Your task to perform on an android device: Open settings on Google Maps Image 0: 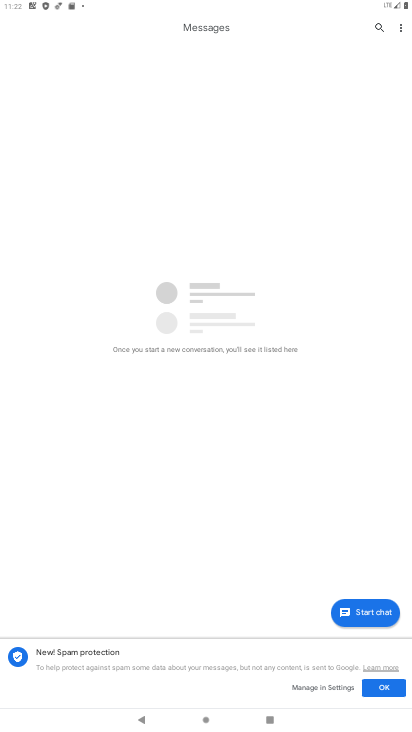
Step 0: press home button
Your task to perform on an android device: Open settings on Google Maps Image 1: 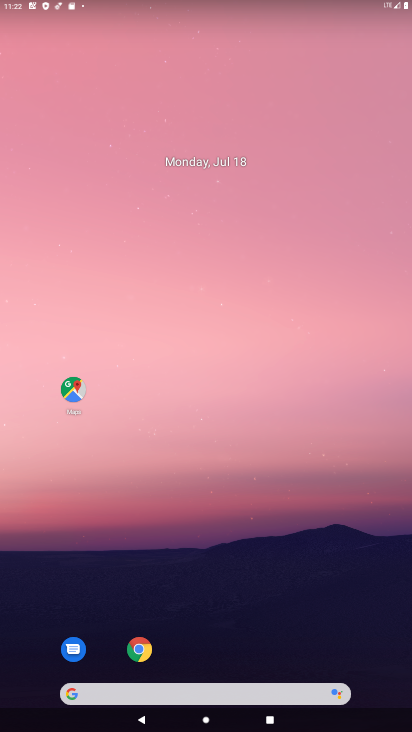
Step 1: drag from (169, 713) to (286, 14)
Your task to perform on an android device: Open settings on Google Maps Image 2: 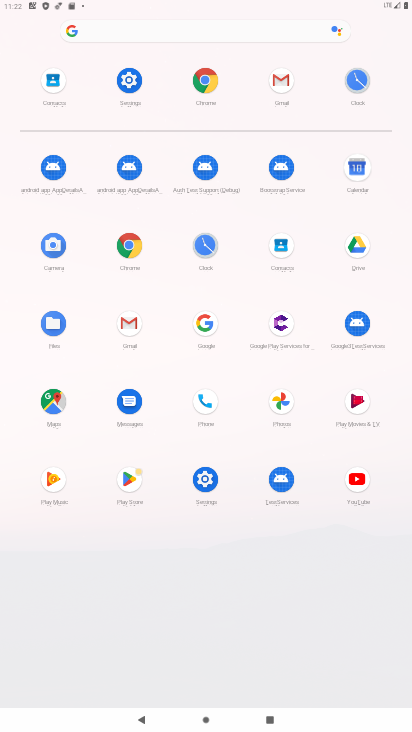
Step 2: click (55, 399)
Your task to perform on an android device: Open settings on Google Maps Image 3: 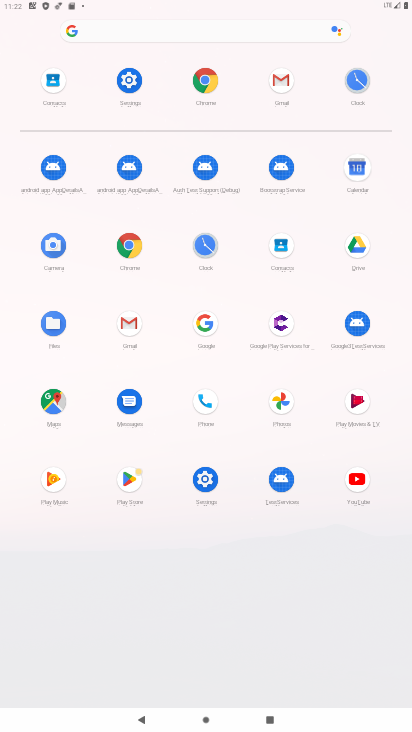
Step 3: click (55, 399)
Your task to perform on an android device: Open settings on Google Maps Image 4: 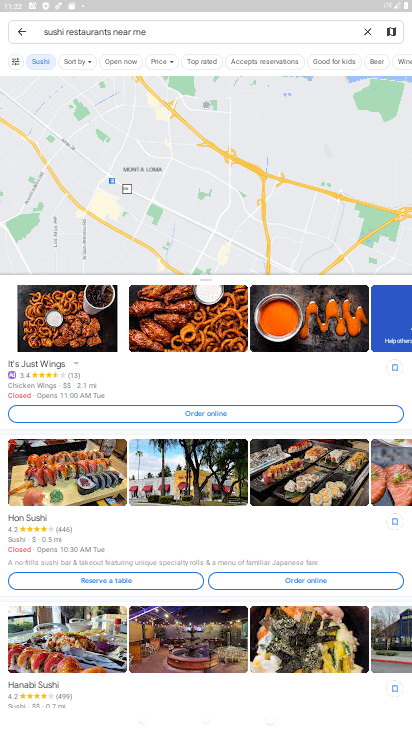
Step 4: click (19, 34)
Your task to perform on an android device: Open settings on Google Maps Image 5: 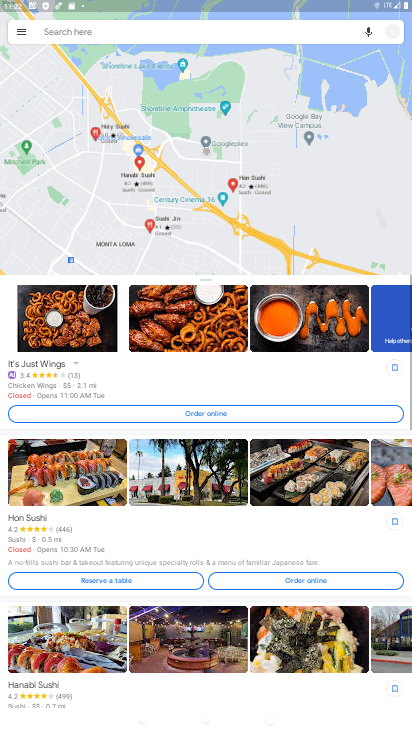
Step 5: click (19, 34)
Your task to perform on an android device: Open settings on Google Maps Image 6: 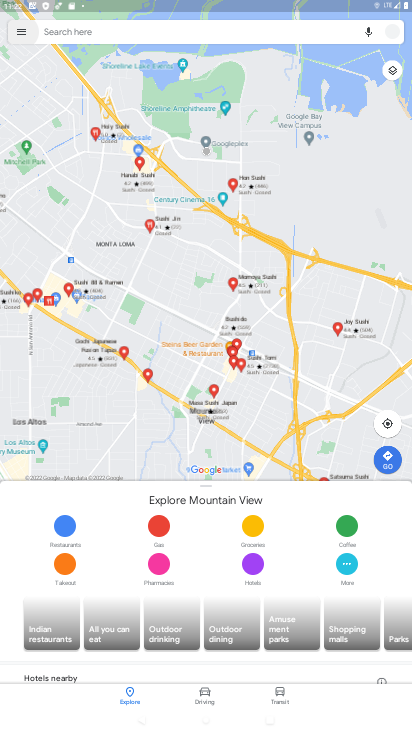
Step 6: click (22, 28)
Your task to perform on an android device: Open settings on Google Maps Image 7: 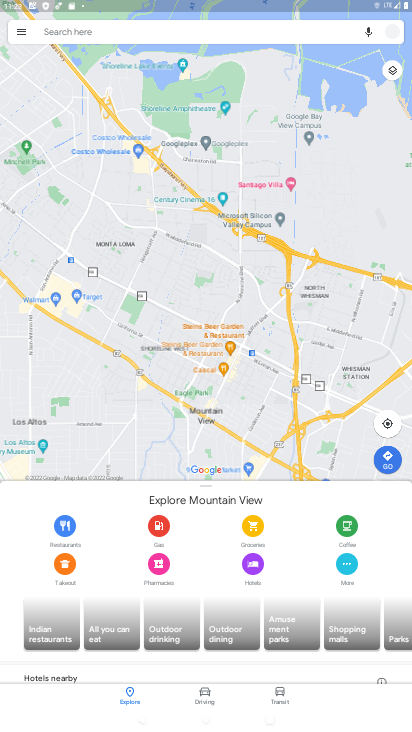
Step 7: click (22, 27)
Your task to perform on an android device: Open settings on Google Maps Image 8: 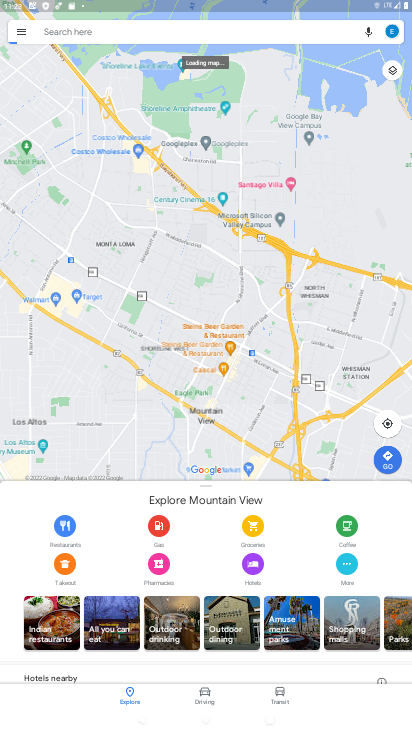
Step 8: click (19, 31)
Your task to perform on an android device: Open settings on Google Maps Image 9: 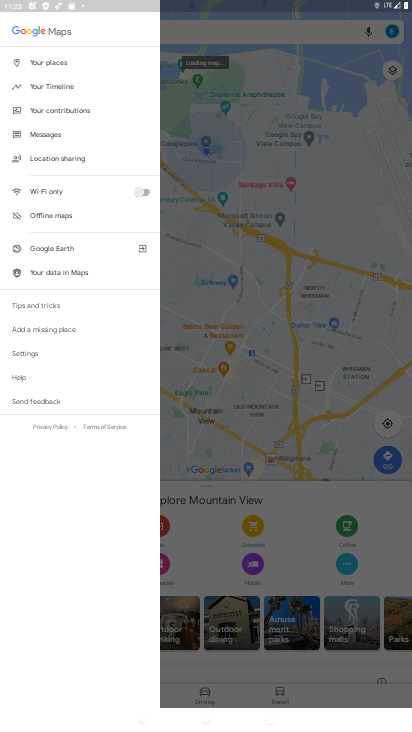
Step 9: click (33, 348)
Your task to perform on an android device: Open settings on Google Maps Image 10: 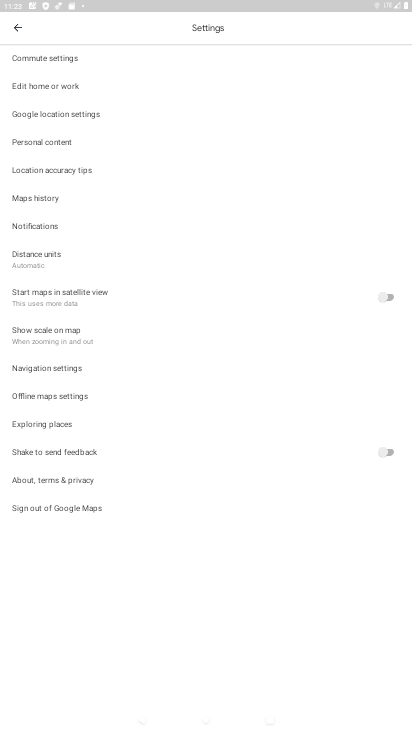
Step 10: task complete